Your task to perform on an android device: check android version Image 0: 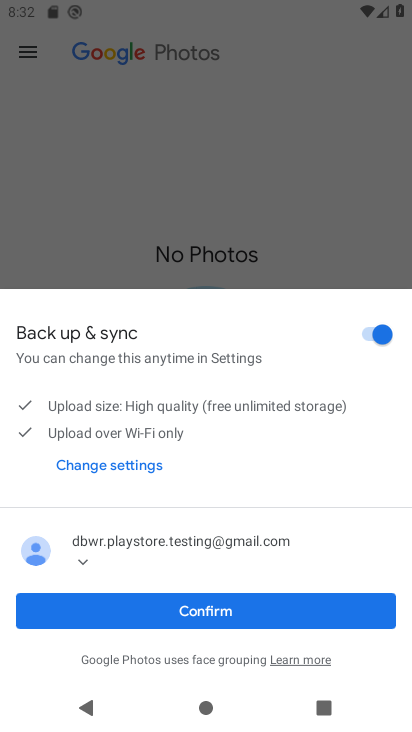
Step 0: press home button
Your task to perform on an android device: check android version Image 1: 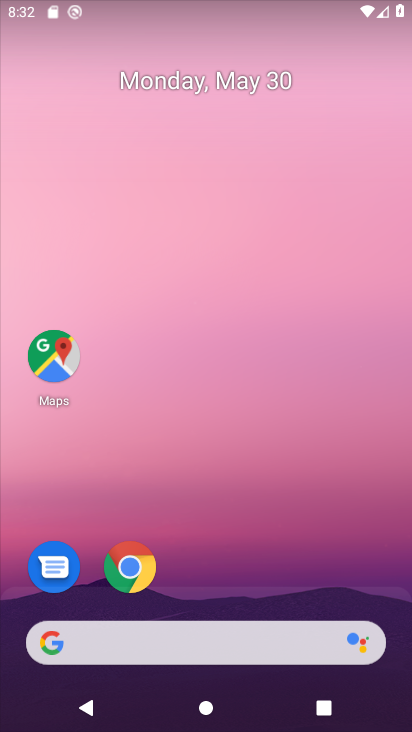
Step 1: drag from (236, 611) to (198, 116)
Your task to perform on an android device: check android version Image 2: 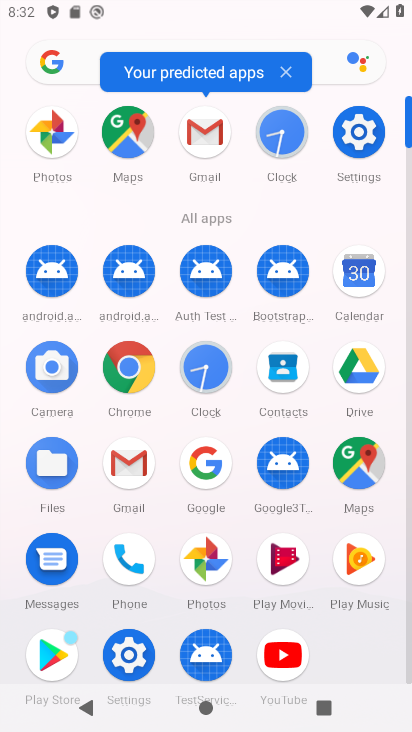
Step 2: click (367, 136)
Your task to perform on an android device: check android version Image 3: 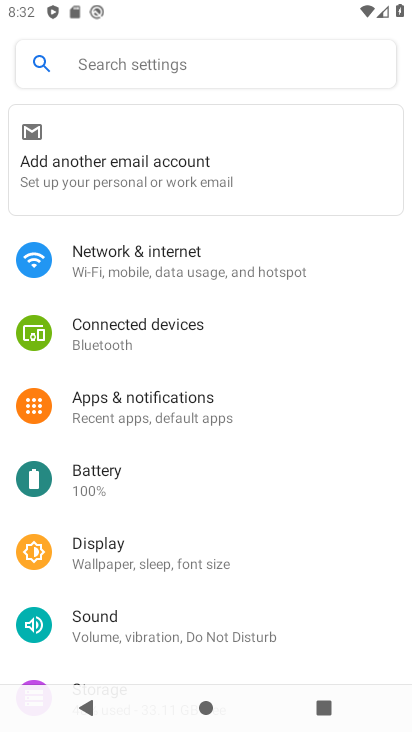
Step 3: drag from (242, 668) to (196, 214)
Your task to perform on an android device: check android version Image 4: 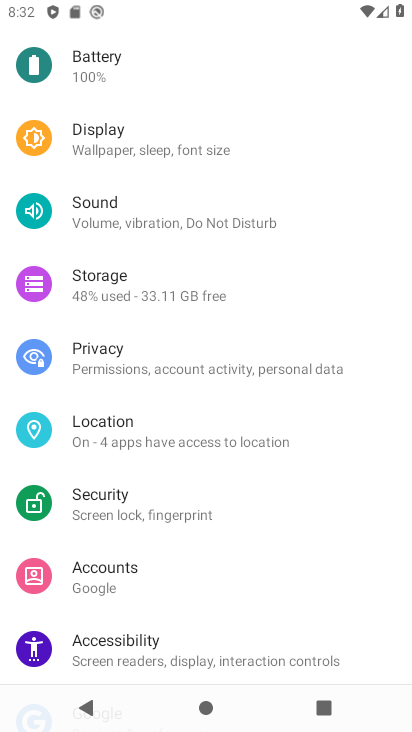
Step 4: drag from (218, 602) to (189, 118)
Your task to perform on an android device: check android version Image 5: 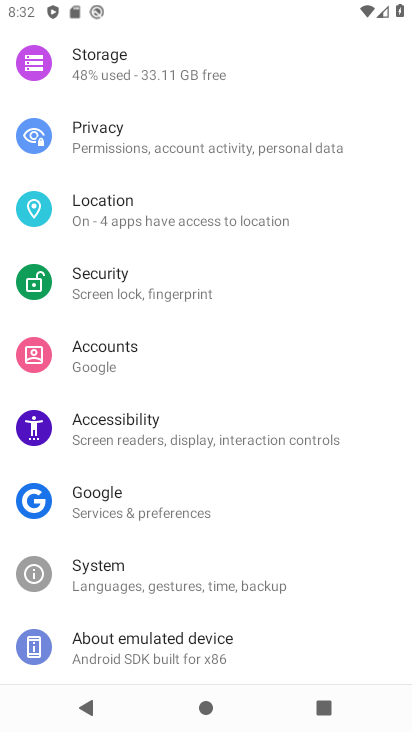
Step 5: click (163, 641)
Your task to perform on an android device: check android version Image 6: 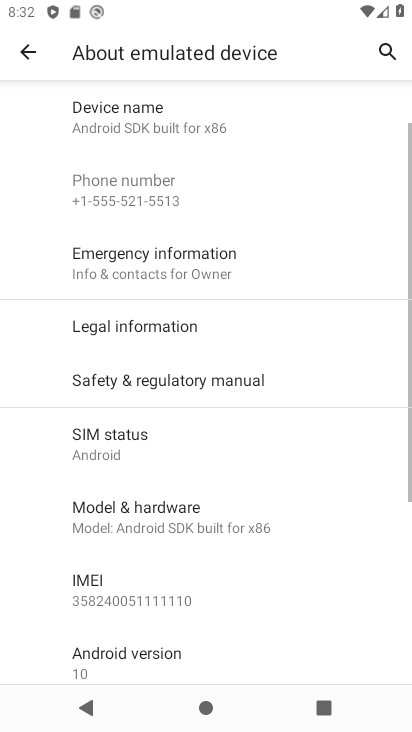
Step 6: drag from (208, 620) to (165, 205)
Your task to perform on an android device: check android version Image 7: 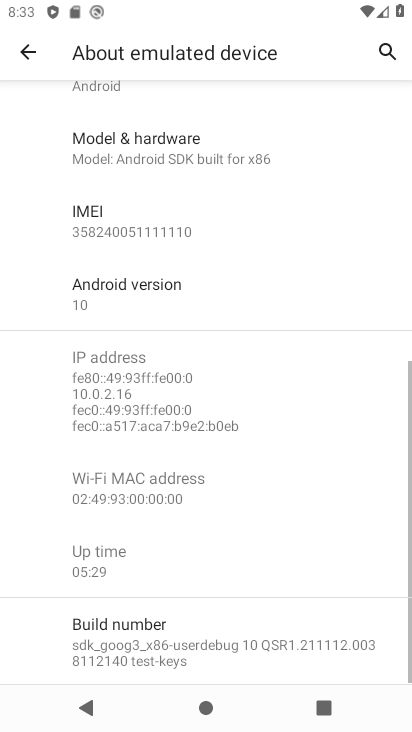
Step 7: click (173, 286)
Your task to perform on an android device: check android version Image 8: 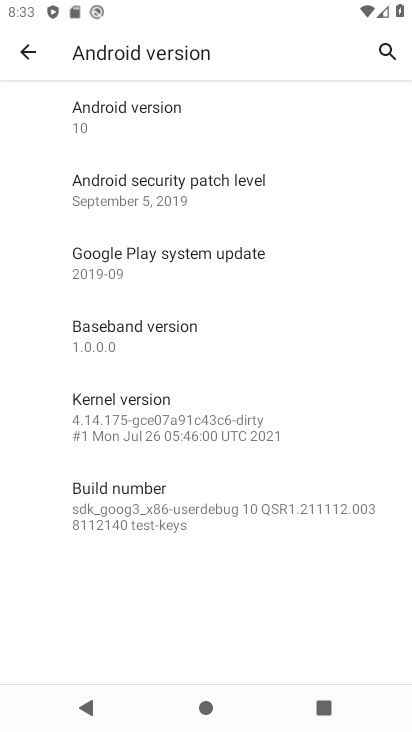
Step 8: task complete